Your task to perform on an android device: Is it going to rain today? Image 0: 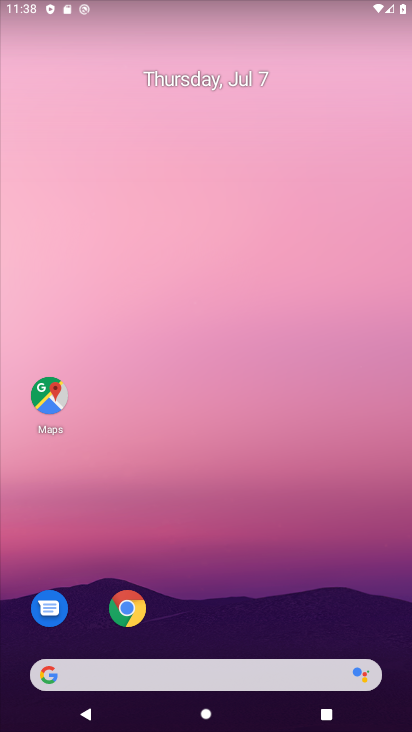
Step 0: click (232, 673)
Your task to perform on an android device: Is it going to rain today? Image 1: 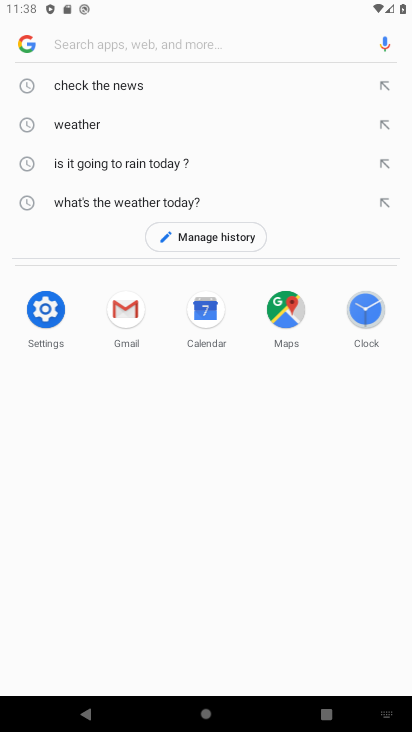
Step 1: click (146, 129)
Your task to perform on an android device: Is it going to rain today? Image 2: 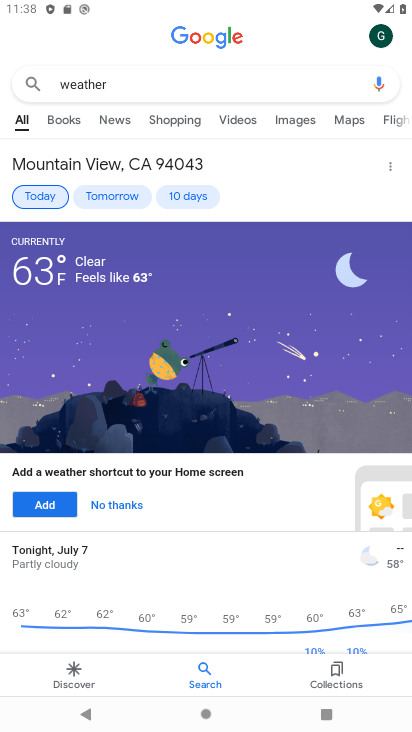
Step 2: task complete